Your task to perform on an android device: Go to network settings Image 0: 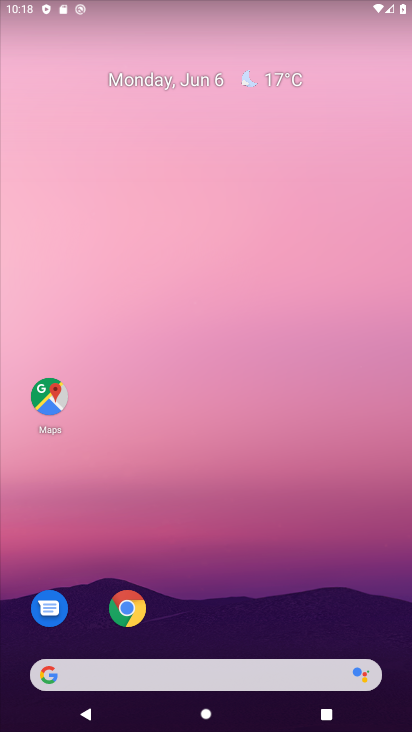
Step 0: drag from (253, 512) to (253, 148)
Your task to perform on an android device: Go to network settings Image 1: 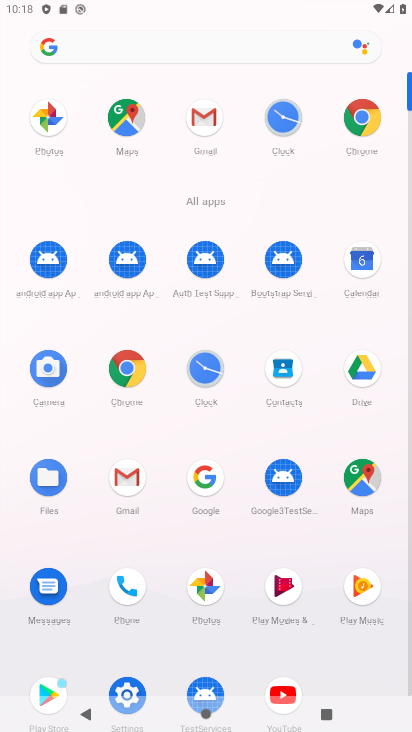
Step 1: drag from (200, 506) to (239, 93)
Your task to perform on an android device: Go to network settings Image 2: 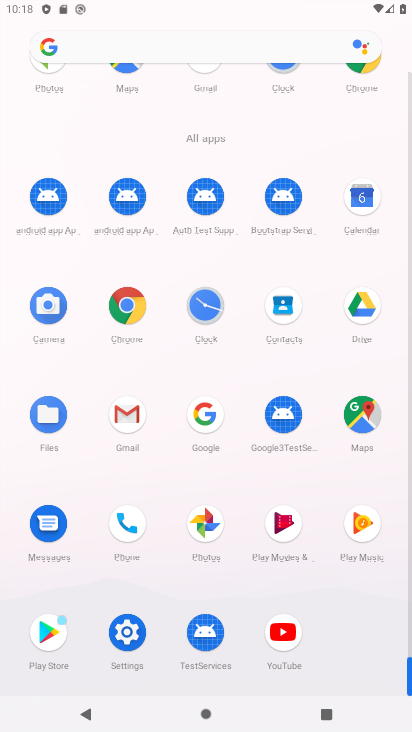
Step 2: click (140, 635)
Your task to perform on an android device: Go to network settings Image 3: 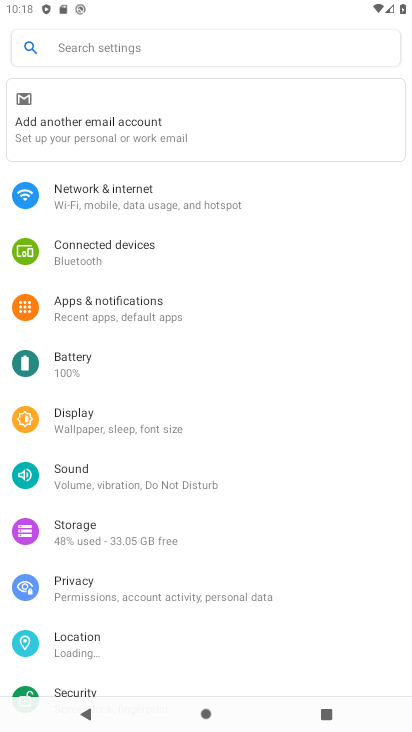
Step 3: click (195, 211)
Your task to perform on an android device: Go to network settings Image 4: 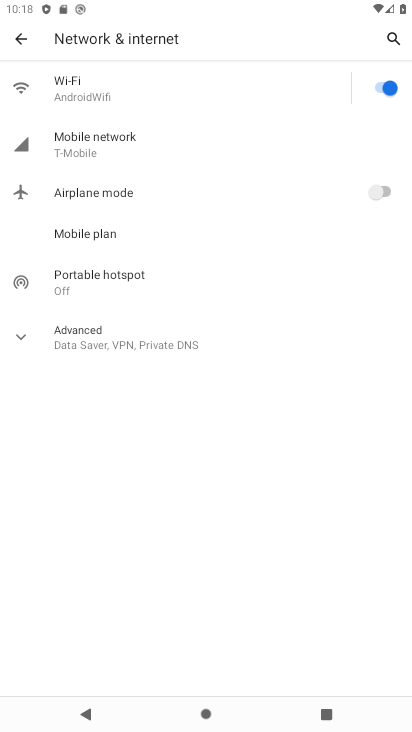
Step 4: click (133, 129)
Your task to perform on an android device: Go to network settings Image 5: 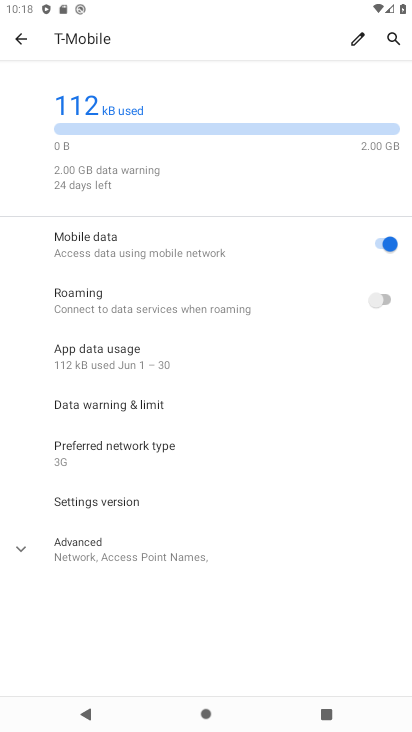
Step 5: task complete